Your task to perform on an android device: Go to network settings Image 0: 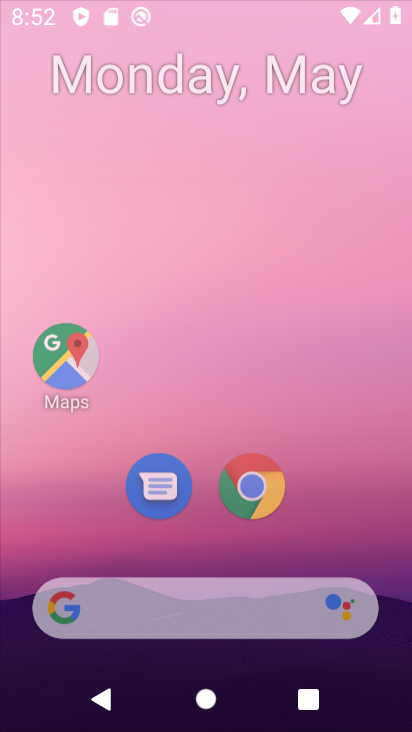
Step 0: click (208, 623)
Your task to perform on an android device: Go to network settings Image 1: 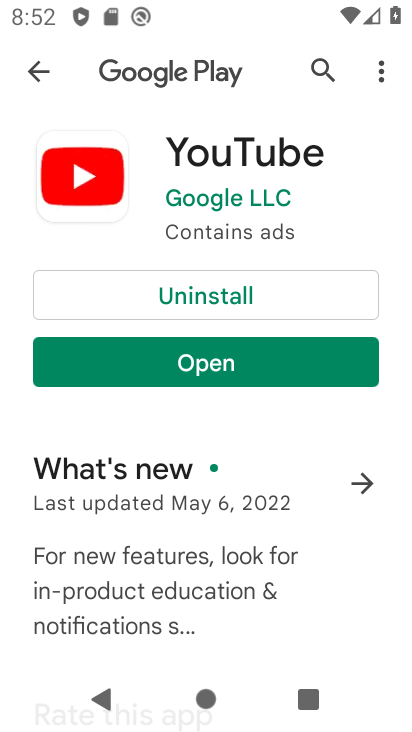
Step 1: press home button
Your task to perform on an android device: Go to network settings Image 2: 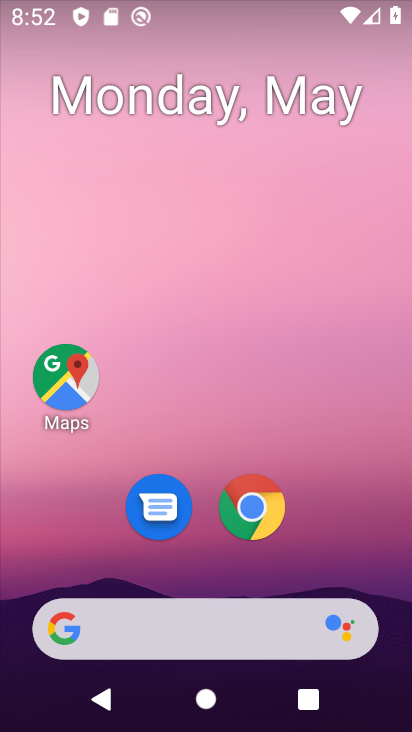
Step 2: drag from (184, 560) to (335, 16)
Your task to perform on an android device: Go to network settings Image 3: 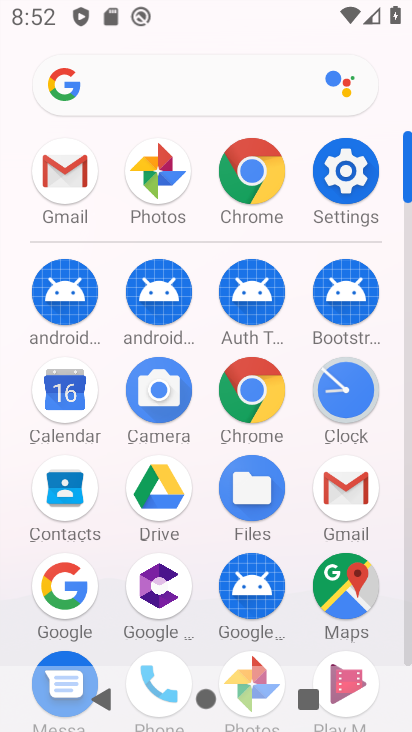
Step 3: click (351, 190)
Your task to perform on an android device: Go to network settings Image 4: 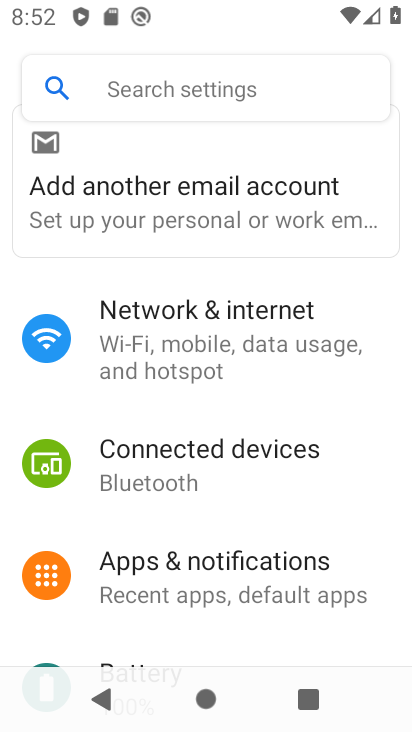
Step 4: click (187, 355)
Your task to perform on an android device: Go to network settings Image 5: 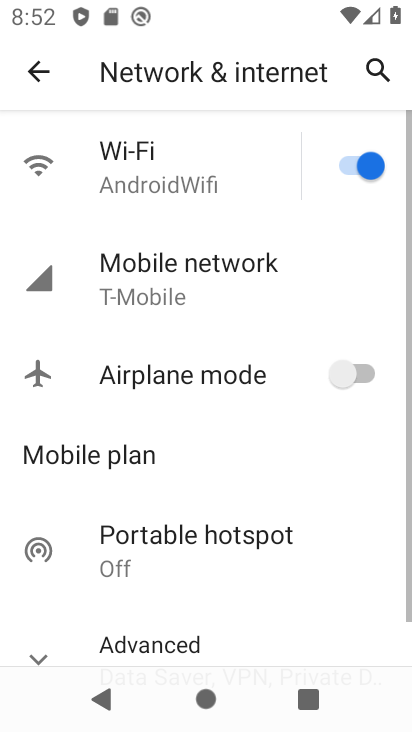
Step 5: task complete